Your task to perform on an android device: toggle location history Image 0: 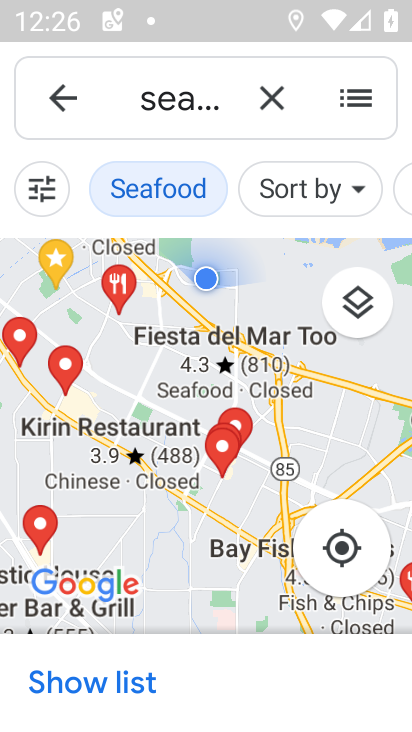
Step 0: press home button
Your task to perform on an android device: toggle location history Image 1: 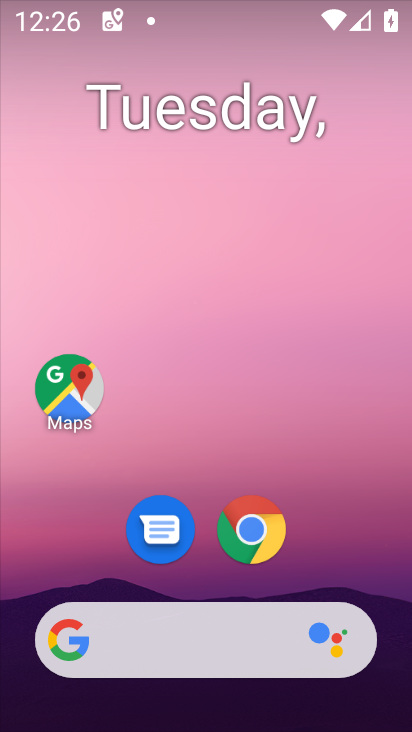
Step 1: drag from (244, 689) to (262, 172)
Your task to perform on an android device: toggle location history Image 2: 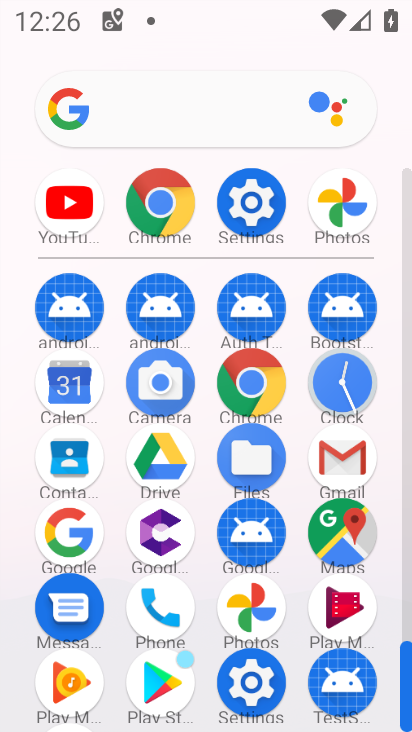
Step 2: click (252, 194)
Your task to perform on an android device: toggle location history Image 3: 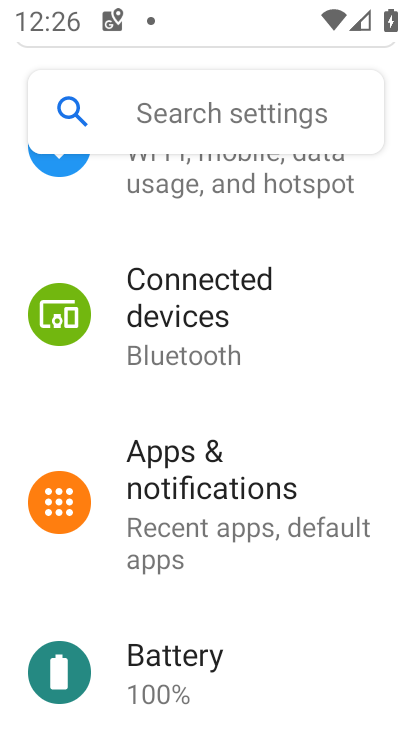
Step 3: click (215, 118)
Your task to perform on an android device: toggle location history Image 4: 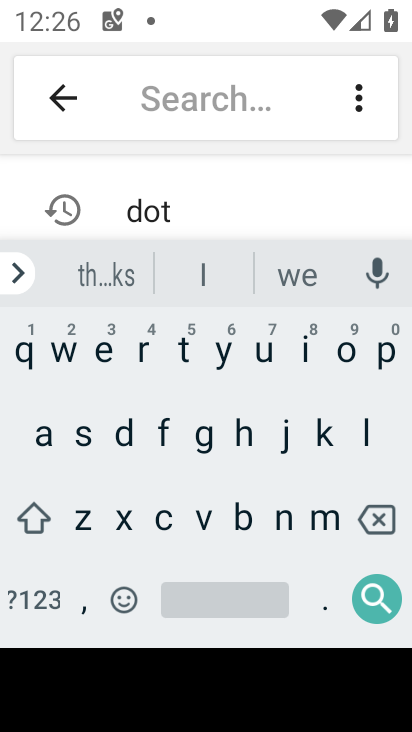
Step 4: click (367, 418)
Your task to perform on an android device: toggle location history Image 5: 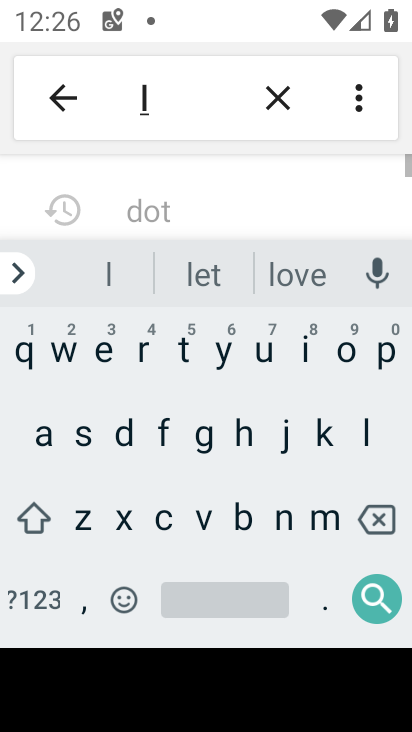
Step 5: click (352, 356)
Your task to perform on an android device: toggle location history Image 6: 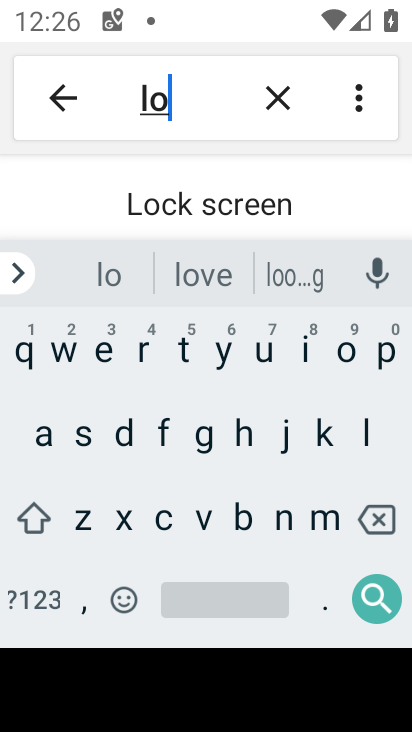
Step 6: press back button
Your task to perform on an android device: toggle location history Image 7: 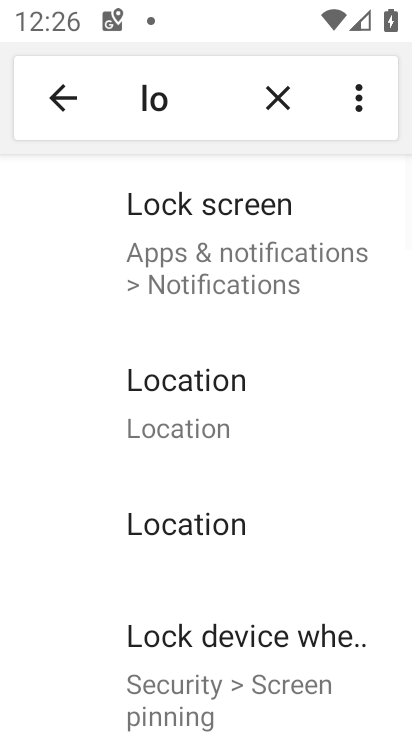
Step 7: click (203, 411)
Your task to perform on an android device: toggle location history Image 8: 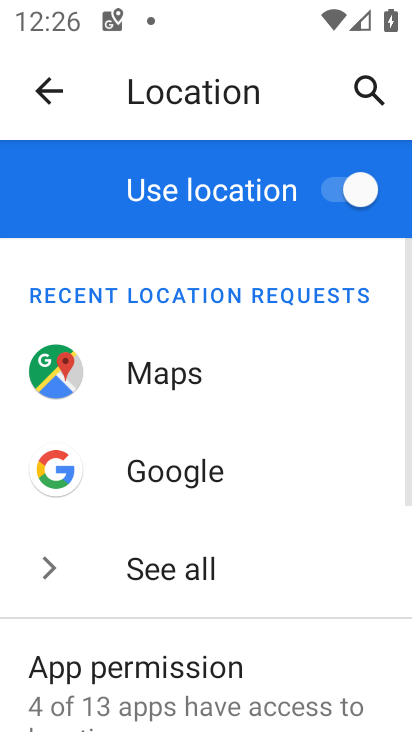
Step 8: task complete